Your task to perform on an android device: visit the assistant section in the google photos Image 0: 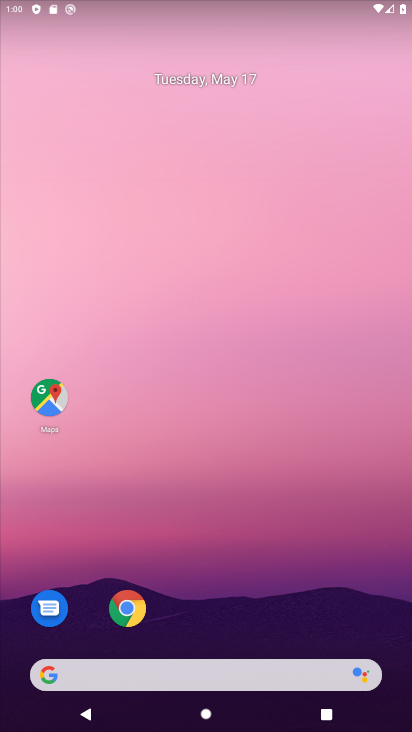
Step 0: drag from (204, 644) to (207, 124)
Your task to perform on an android device: visit the assistant section in the google photos Image 1: 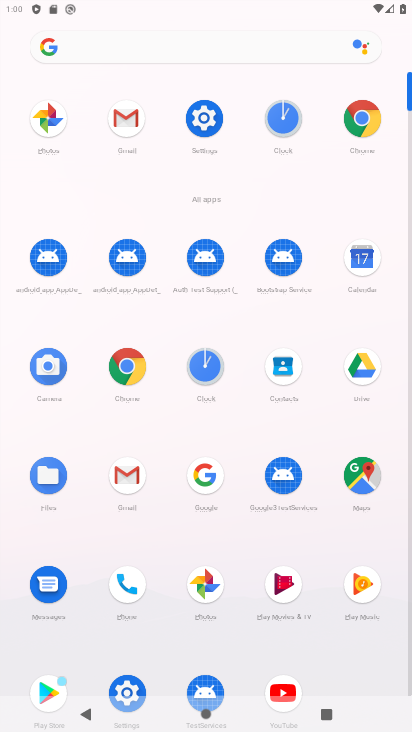
Step 1: click (201, 585)
Your task to perform on an android device: visit the assistant section in the google photos Image 2: 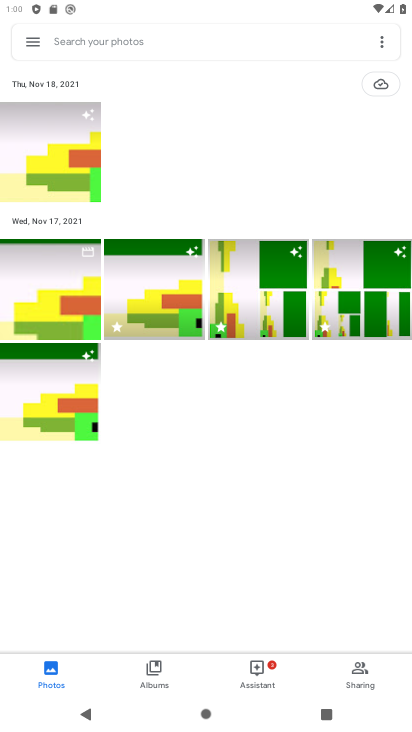
Step 2: click (251, 683)
Your task to perform on an android device: visit the assistant section in the google photos Image 3: 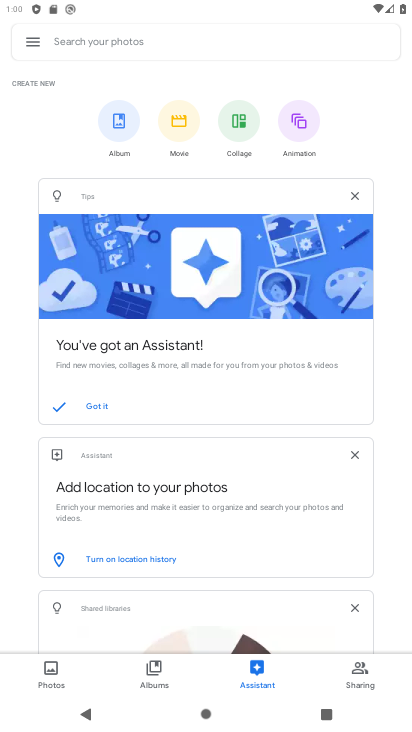
Step 3: task complete